Your task to perform on an android device: allow cookies in the chrome app Image 0: 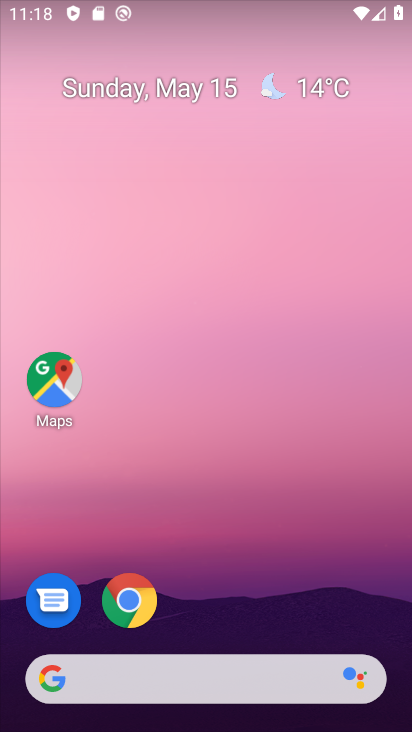
Step 0: click (128, 595)
Your task to perform on an android device: allow cookies in the chrome app Image 1: 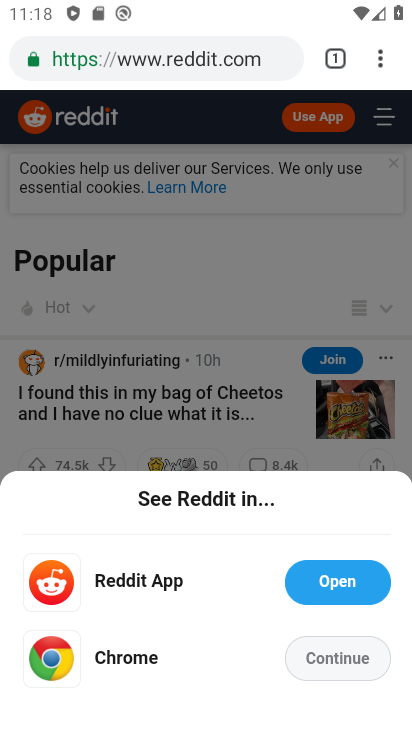
Step 1: click (378, 64)
Your task to perform on an android device: allow cookies in the chrome app Image 2: 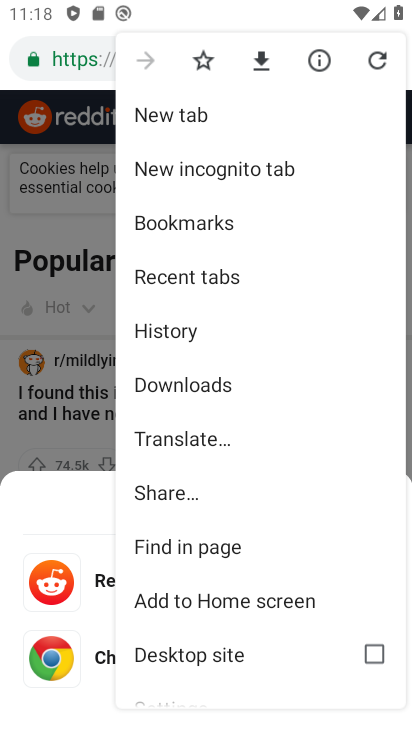
Step 2: drag from (314, 624) to (330, 169)
Your task to perform on an android device: allow cookies in the chrome app Image 3: 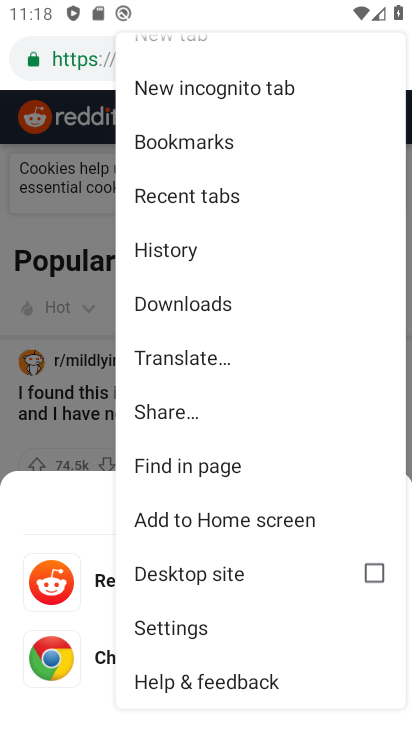
Step 3: click (184, 641)
Your task to perform on an android device: allow cookies in the chrome app Image 4: 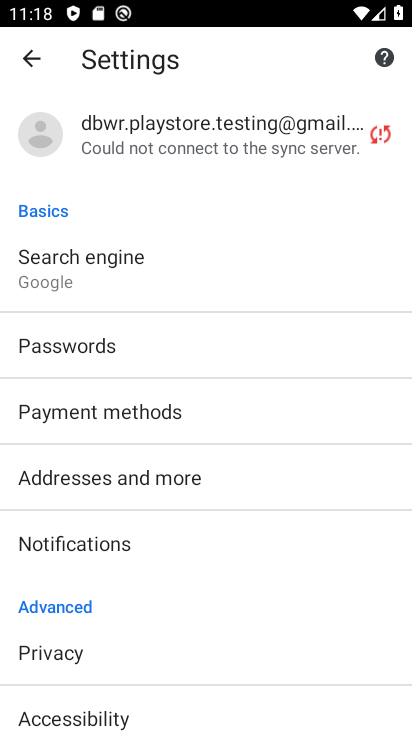
Step 4: drag from (232, 683) to (249, 261)
Your task to perform on an android device: allow cookies in the chrome app Image 5: 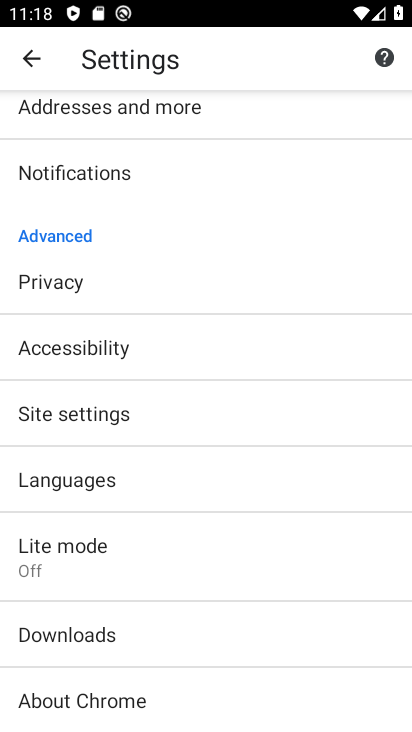
Step 5: click (48, 401)
Your task to perform on an android device: allow cookies in the chrome app Image 6: 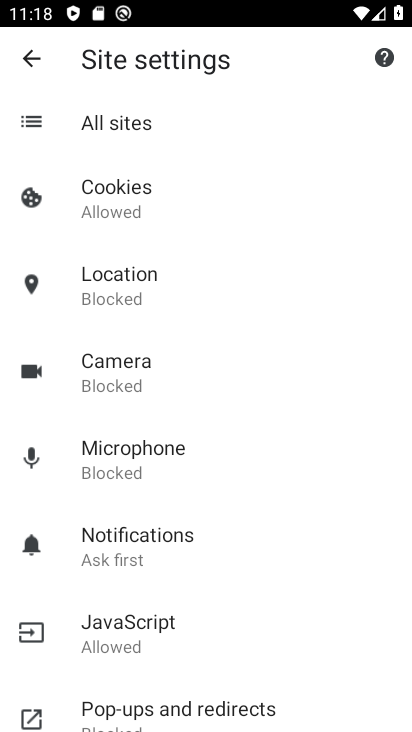
Step 6: click (118, 198)
Your task to perform on an android device: allow cookies in the chrome app Image 7: 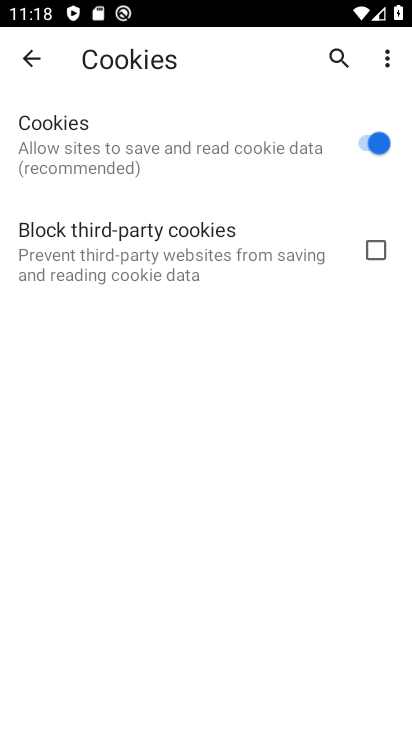
Step 7: task complete